Your task to perform on an android device: turn off translation in the chrome app Image 0: 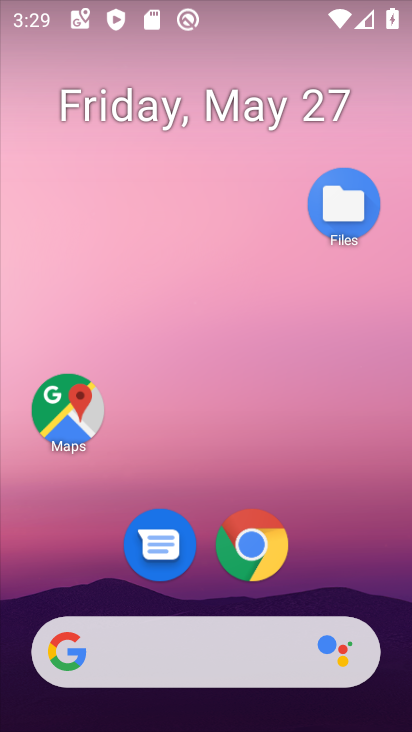
Step 0: press home button
Your task to perform on an android device: turn off translation in the chrome app Image 1: 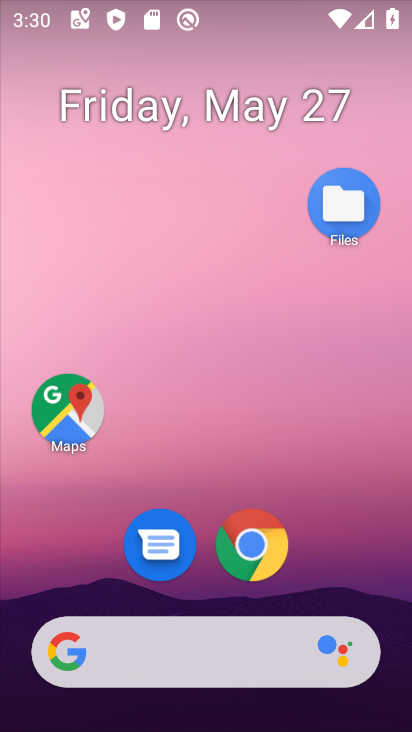
Step 1: click (249, 555)
Your task to perform on an android device: turn off translation in the chrome app Image 2: 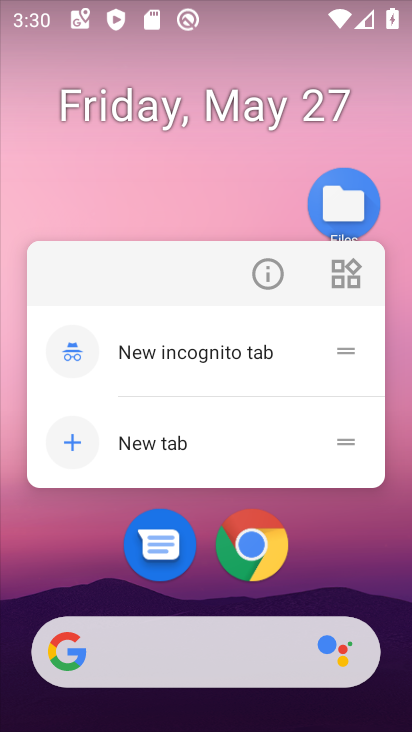
Step 2: click (254, 550)
Your task to perform on an android device: turn off translation in the chrome app Image 3: 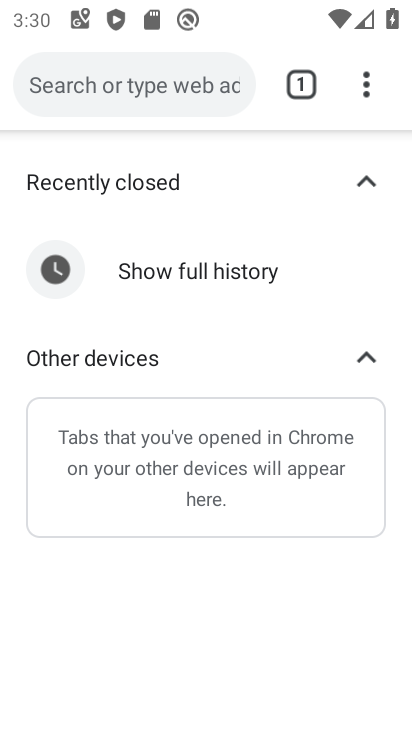
Step 3: drag from (363, 96) to (240, 599)
Your task to perform on an android device: turn off translation in the chrome app Image 4: 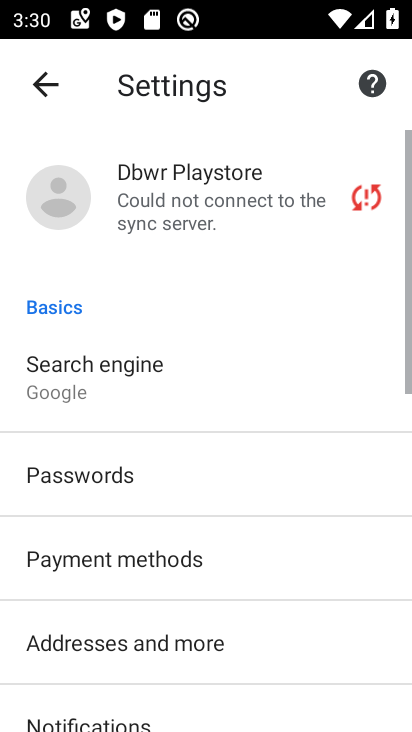
Step 4: drag from (221, 629) to (373, 91)
Your task to perform on an android device: turn off translation in the chrome app Image 5: 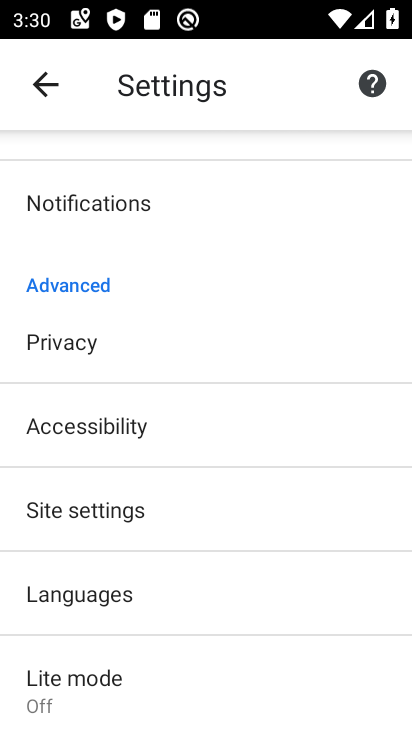
Step 5: drag from (252, 604) to (302, 400)
Your task to perform on an android device: turn off translation in the chrome app Image 6: 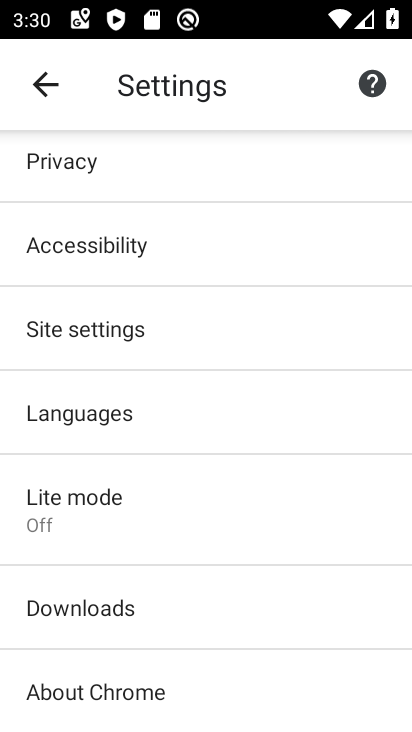
Step 6: click (191, 407)
Your task to perform on an android device: turn off translation in the chrome app Image 7: 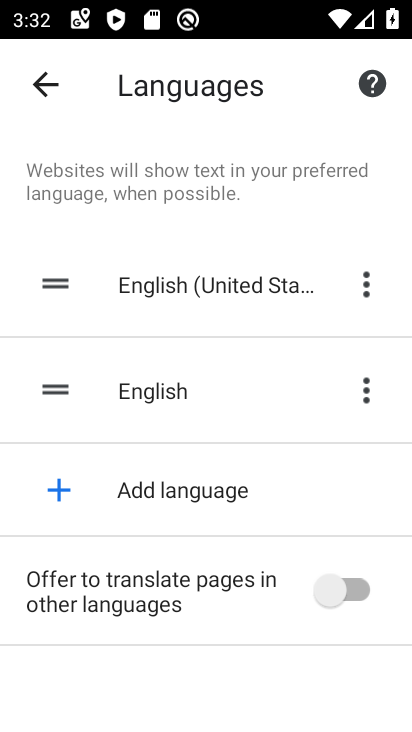
Step 7: task complete